Your task to perform on an android device: Go to accessibility settings Image 0: 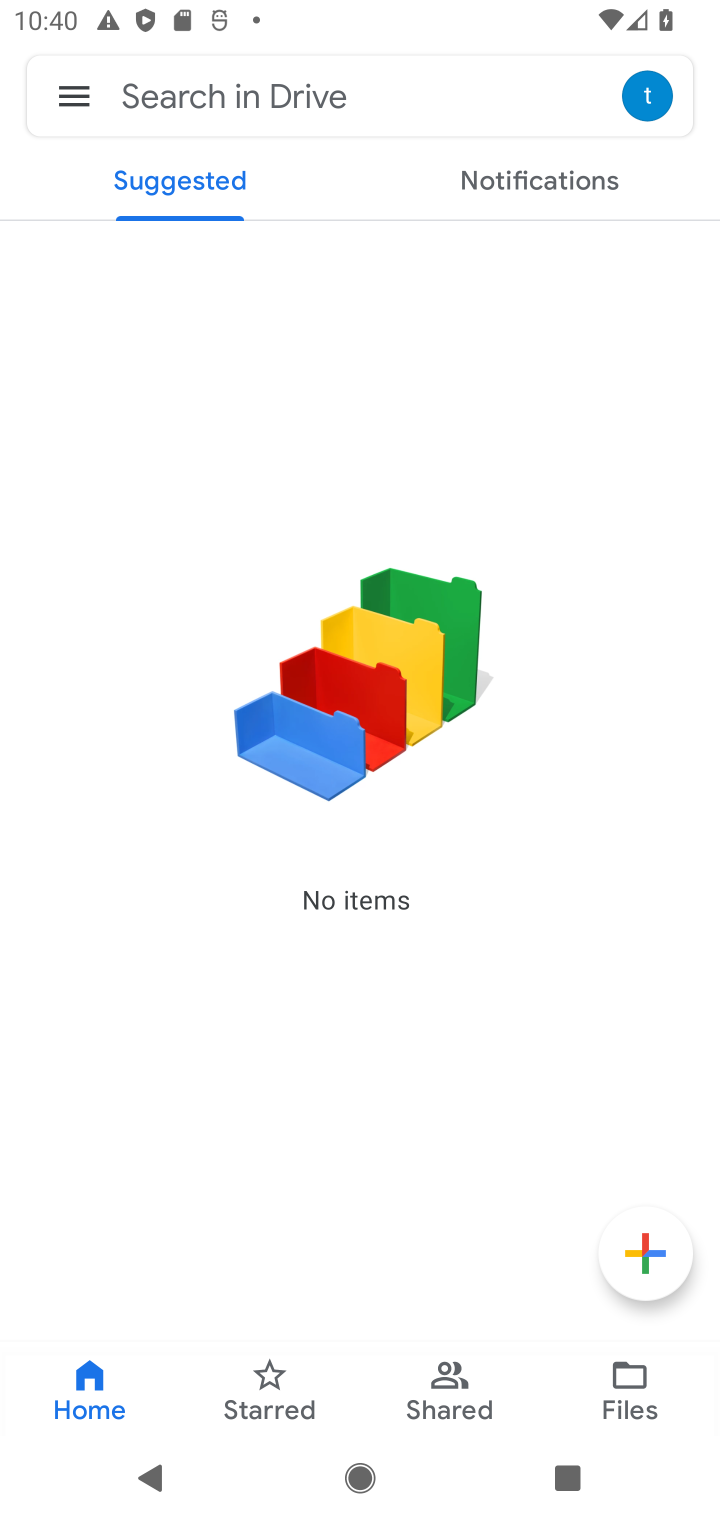
Step 0: press home button
Your task to perform on an android device: Go to accessibility settings Image 1: 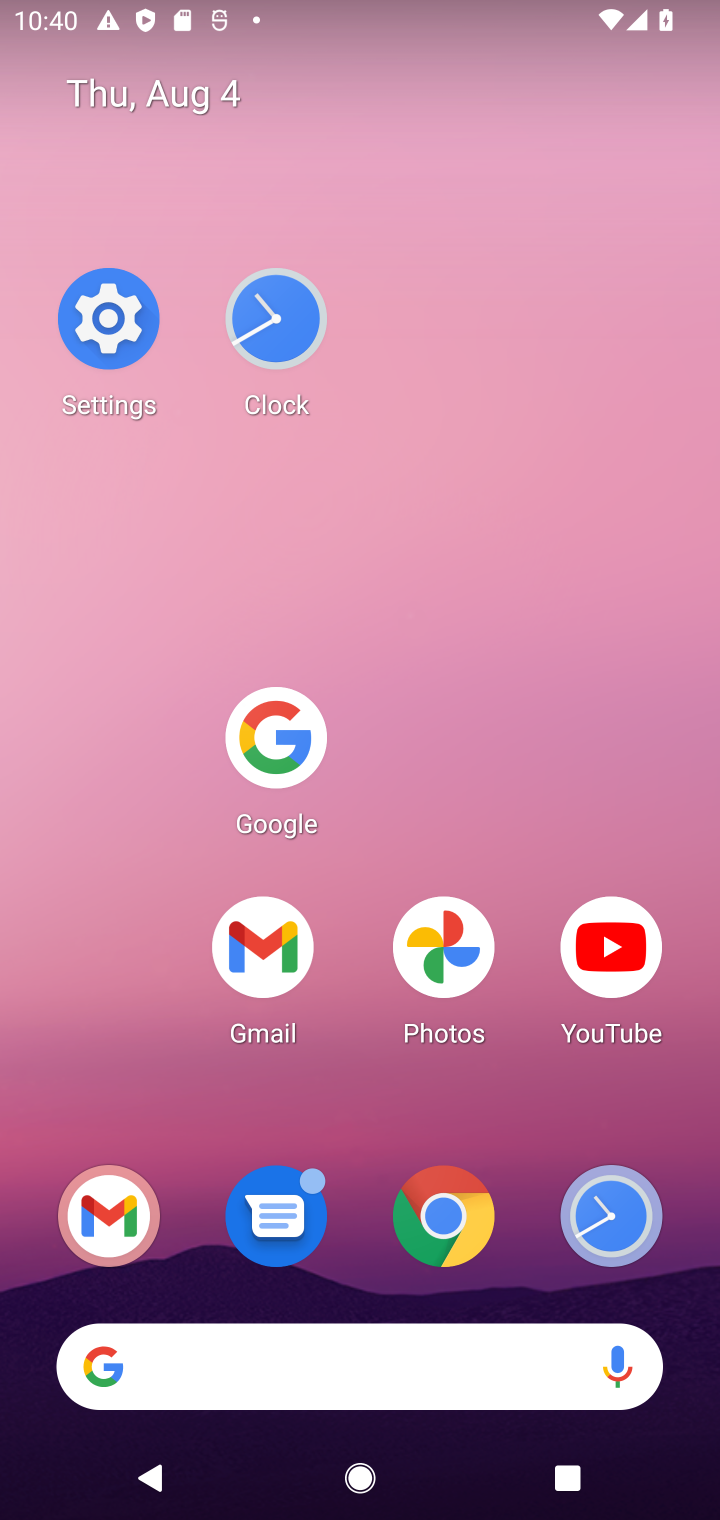
Step 1: click (152, 352)
Your task to perform on an android device: Go to accessibility settings Image 2: 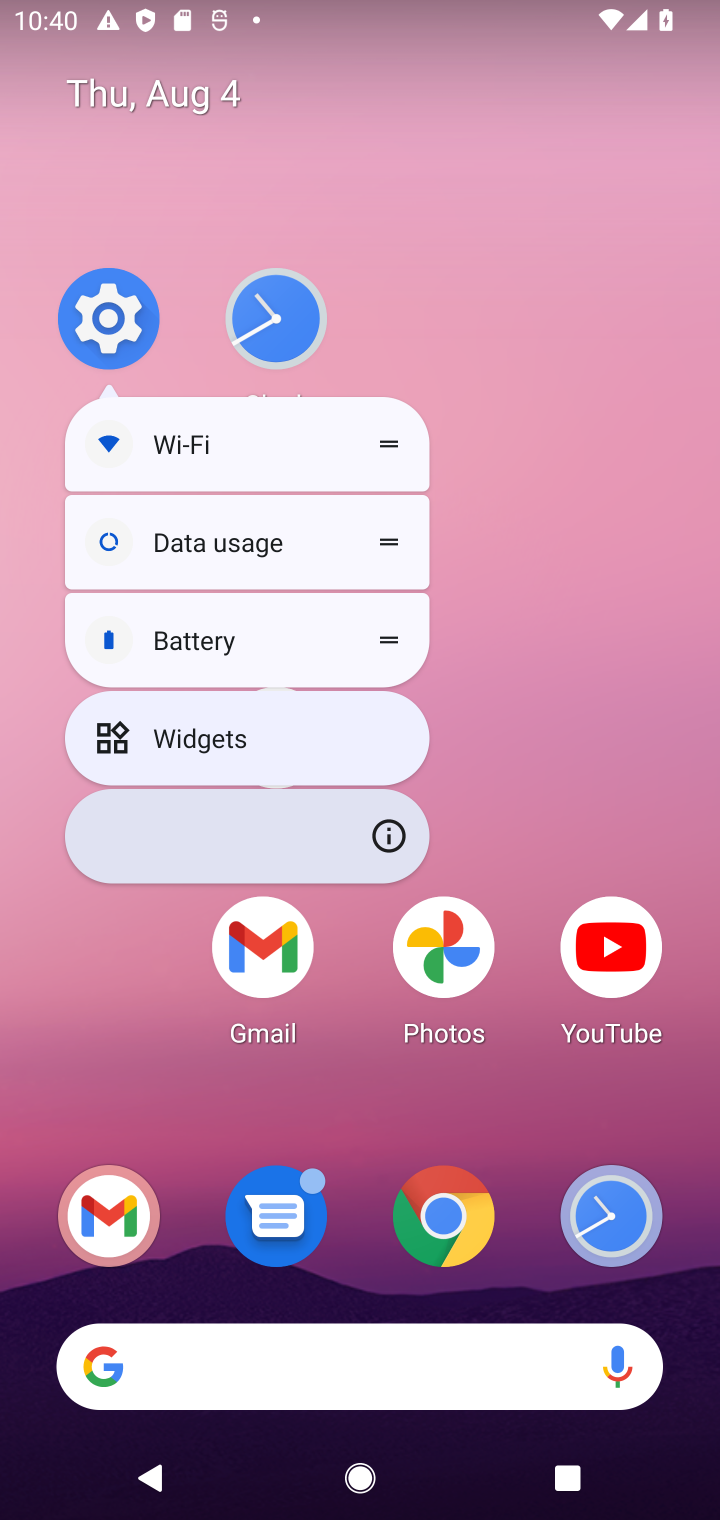
Step 2: click (136, 341)
Your task to perform on an android device: Go to accessibility settings Image 3: 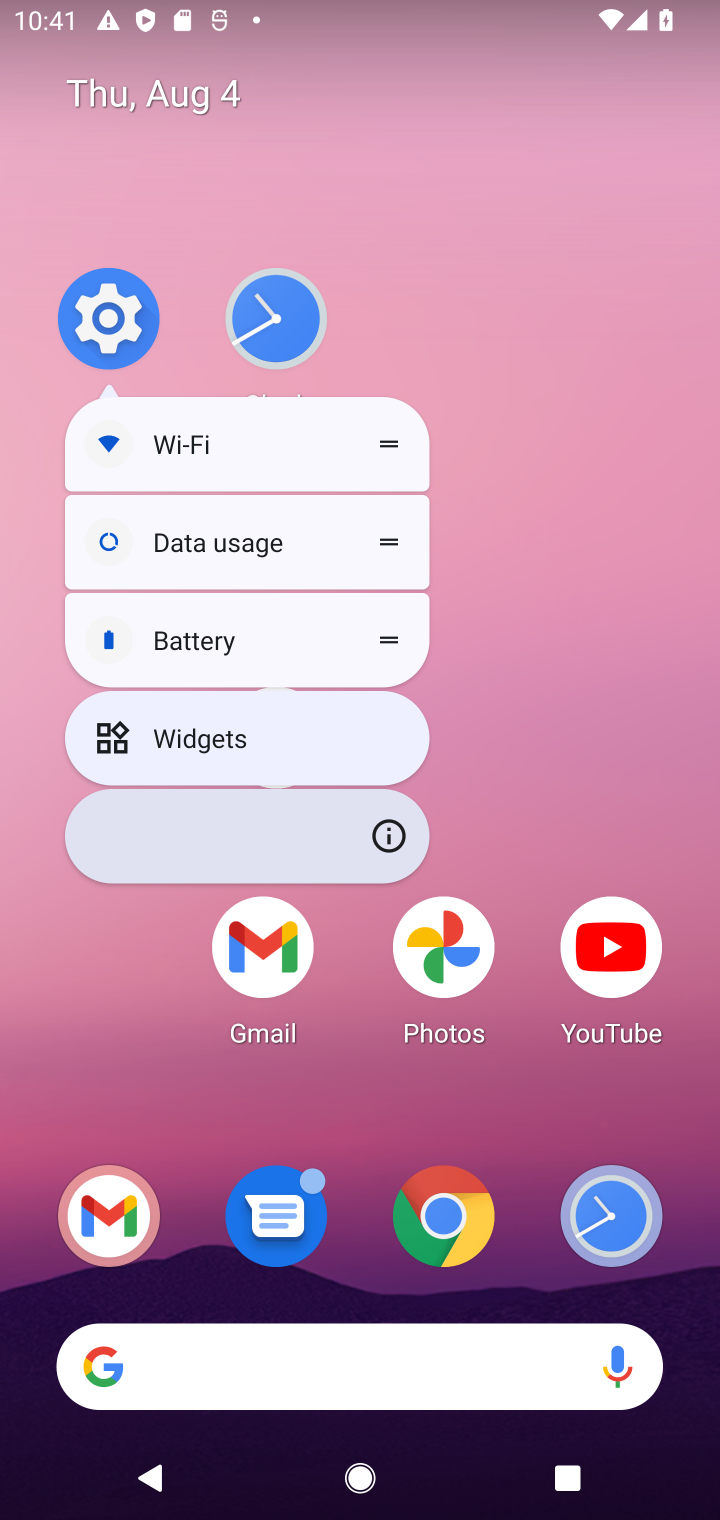
Step 3: click (136, 341)
Your task to perform on an android device: Go to accessibility settings Image 4: 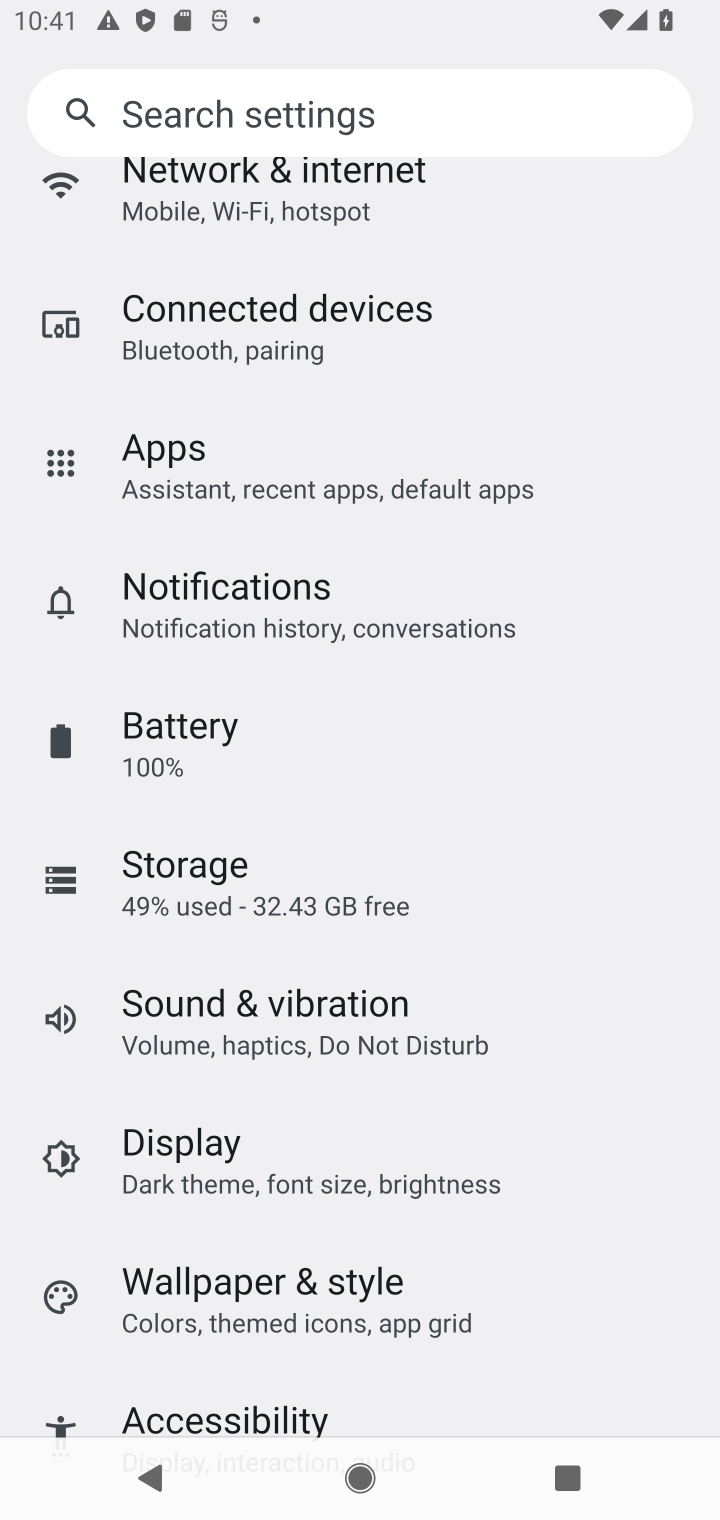
Step 4: click (259, 1420)
Your task to perform on an android device: Go to accessibility settings Image 5: 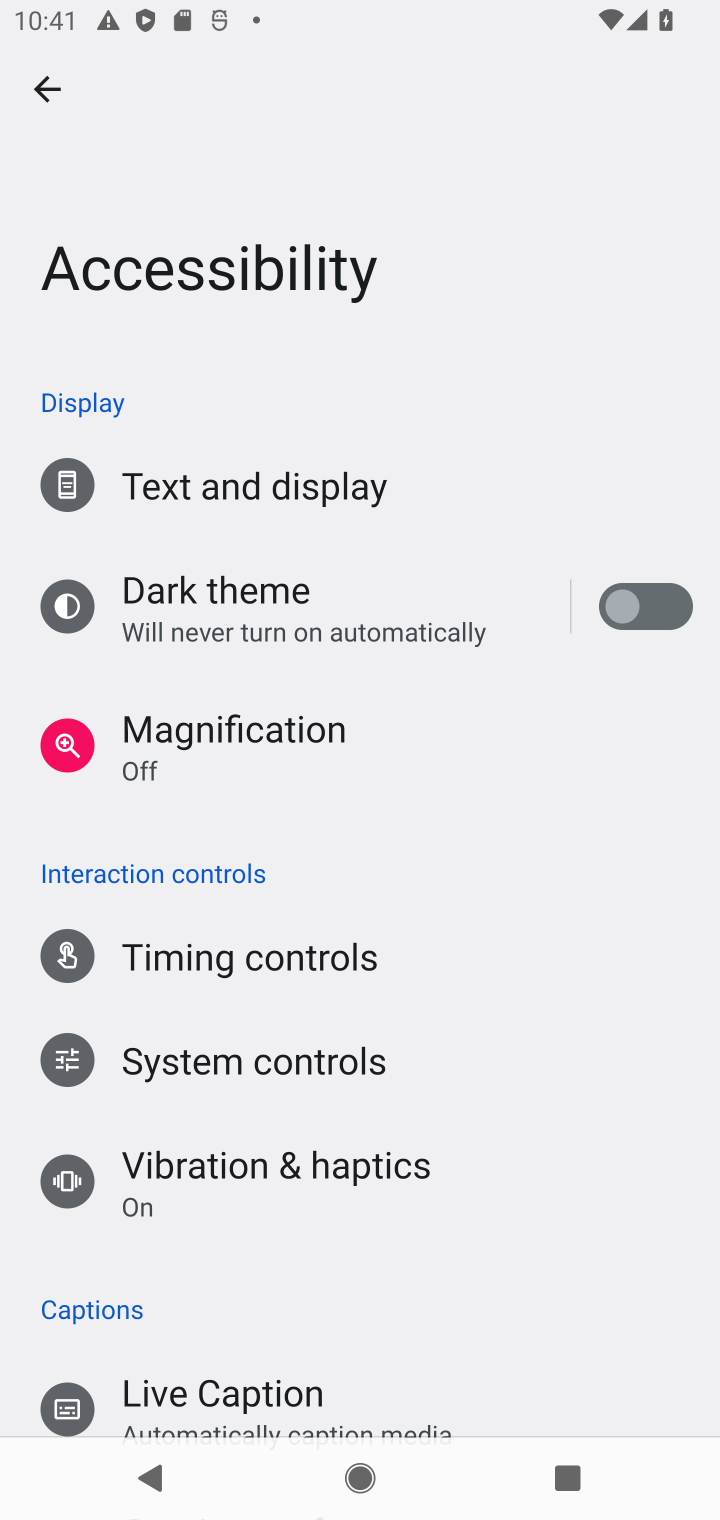
Step 5: task complete